Your task to perform on an android device: add a contact in the contacts app Image 0: 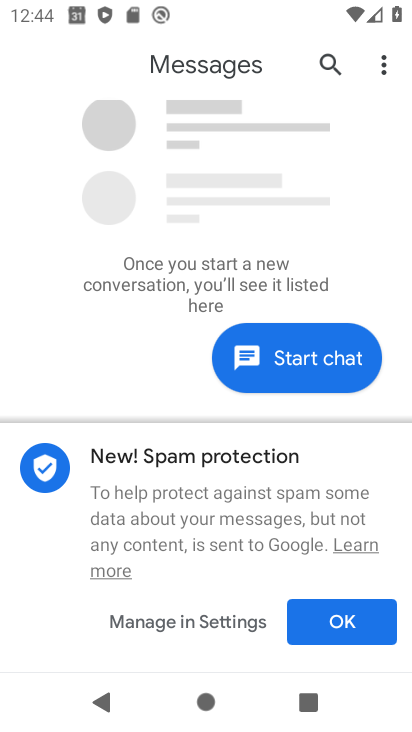
Step 0: press home button
Your task to perform on an android device: add a contact in the contacts app Image 1: 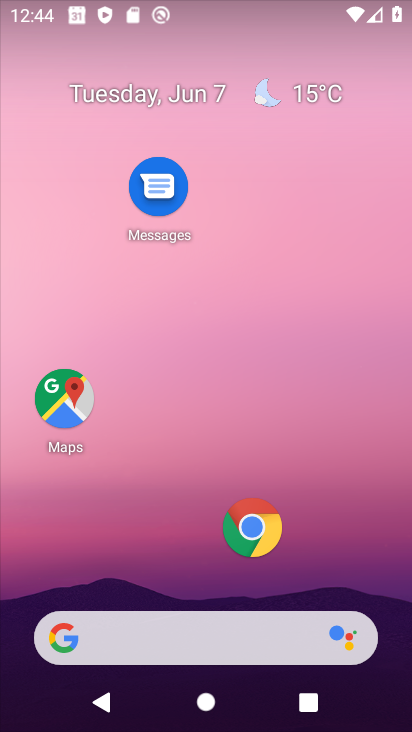
Step 1: drag from (200, 618) to (219, 379)
Your task to perform on an android device: add a contact in the contacts app Image 2: 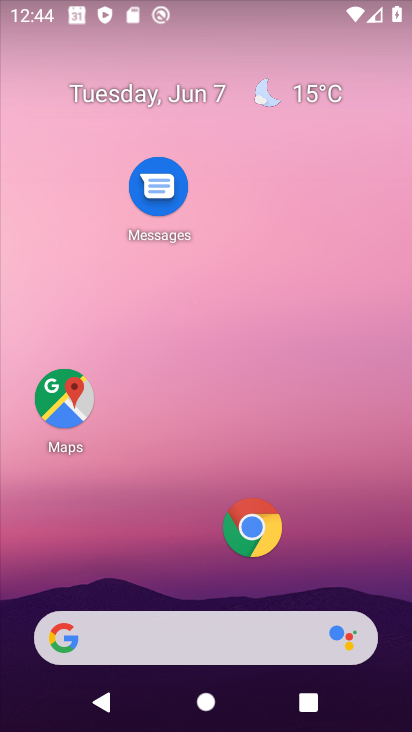
Step 2: drag from (191, 470) to (207, 221)
Your task to perform on an android device: add a contact in the contacts app Image 3: 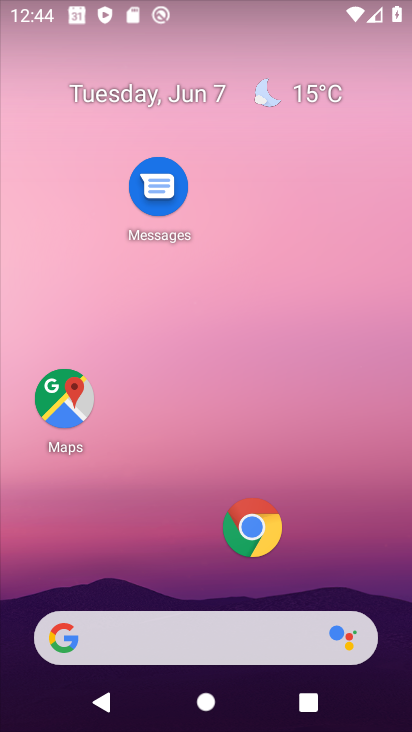
Step 3: drag from (216, 573) to (279, 131)
Your task to perform on an android device: add a contact in the contacts app Image 4: 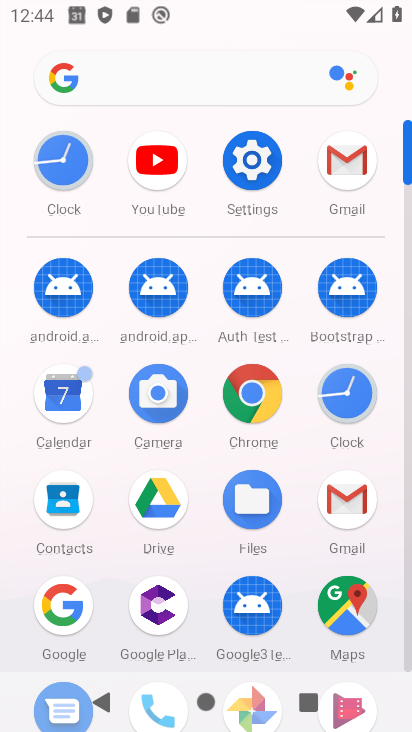
Step 4: drag from (113, 623) to (113, 289)
Your task to perform on an android device: add a contact in the contacts app Image 5: 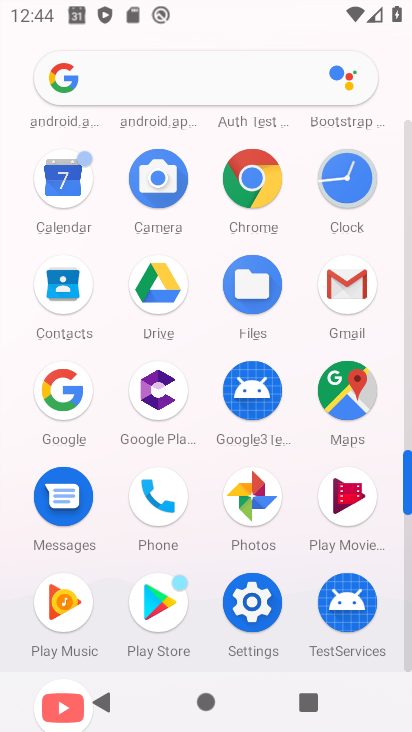
Step 5: click (69, 280)
Your task to perform on an android device: add a contact in the contacts app Image 6: 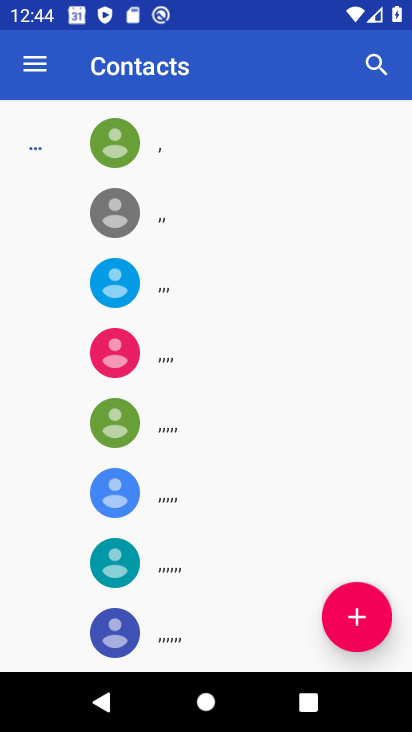
Step 6: click (357, 618)
Your task to perform on an android device: add a contact in the contacts app Image 7: 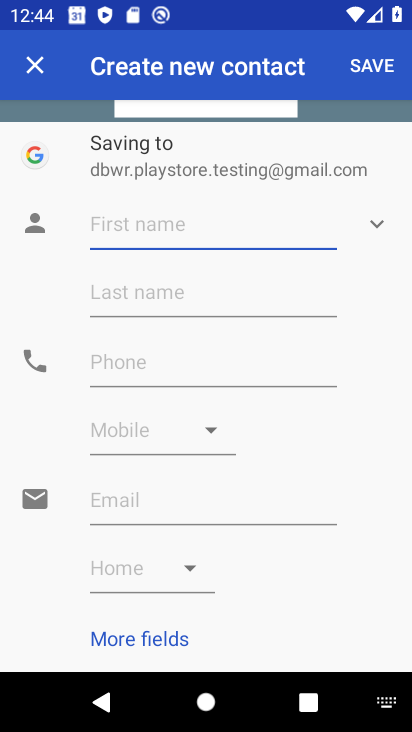
Step 7: type "piku"
Your task to perform on an android device: add a contact in the contacts app Image 8: 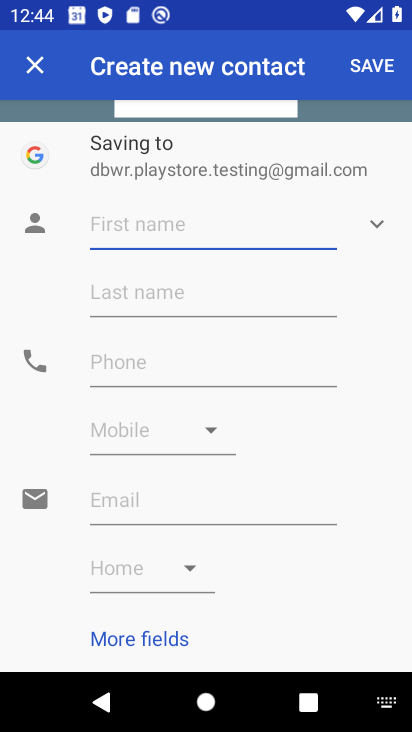
Step 8: click (239, 298)
Your task to perform on an android device: add a contact in the contacts app Image 9: 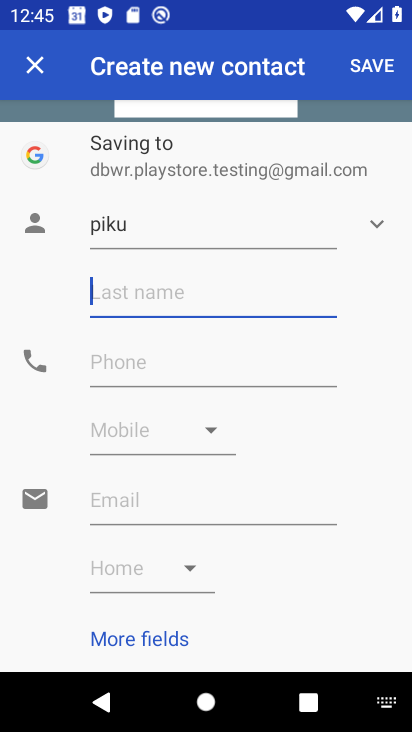
Step 9: type "jihu"
Your task to perform on an android device: add a contact in the contacts app Image 10: 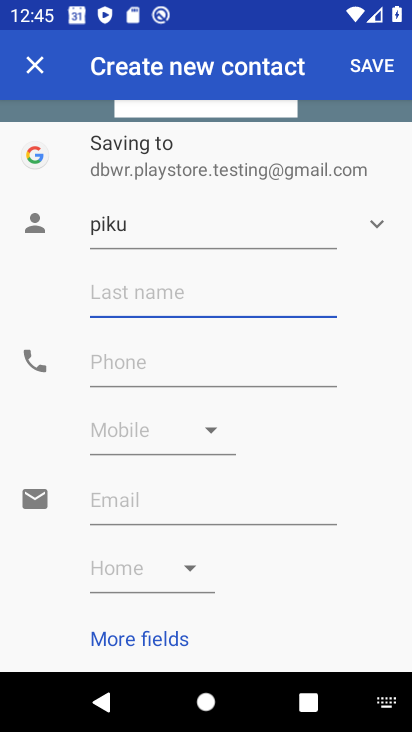
Step 10: click (189, 382)
Your task to perform on an android device: add a contact in the contacts app Image 11: 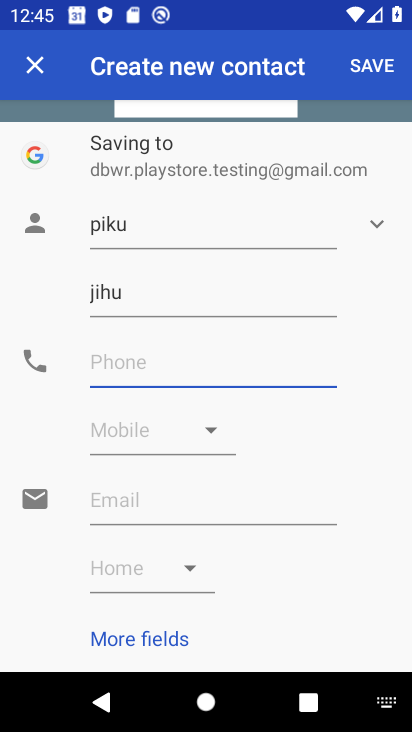
Step 11: type "7898989534"
Your task to perform on an android device: add a contact in the contacts app Image 12: 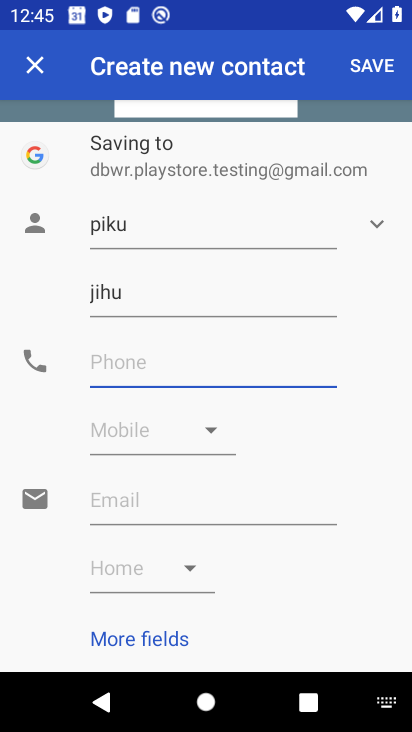
Step 12: click (159, 514)
Your task to perform on an android device: add a contact in the contacts app Image 13: 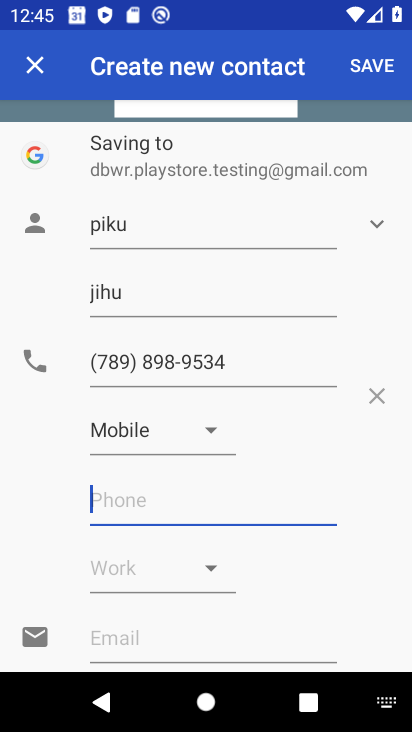
Step 13: click (378, 66)
Your task to perform on an android device: add a contact in the contacts app Image 14: 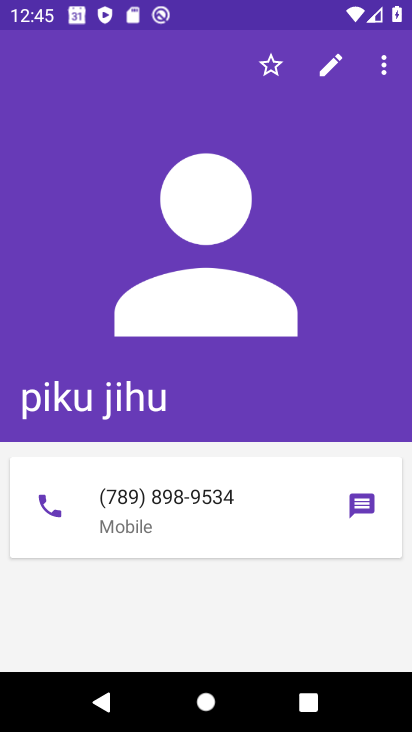
Step 14: task complete